Your task to perform on an android device: turn on javascript in the chrome app Image 0: 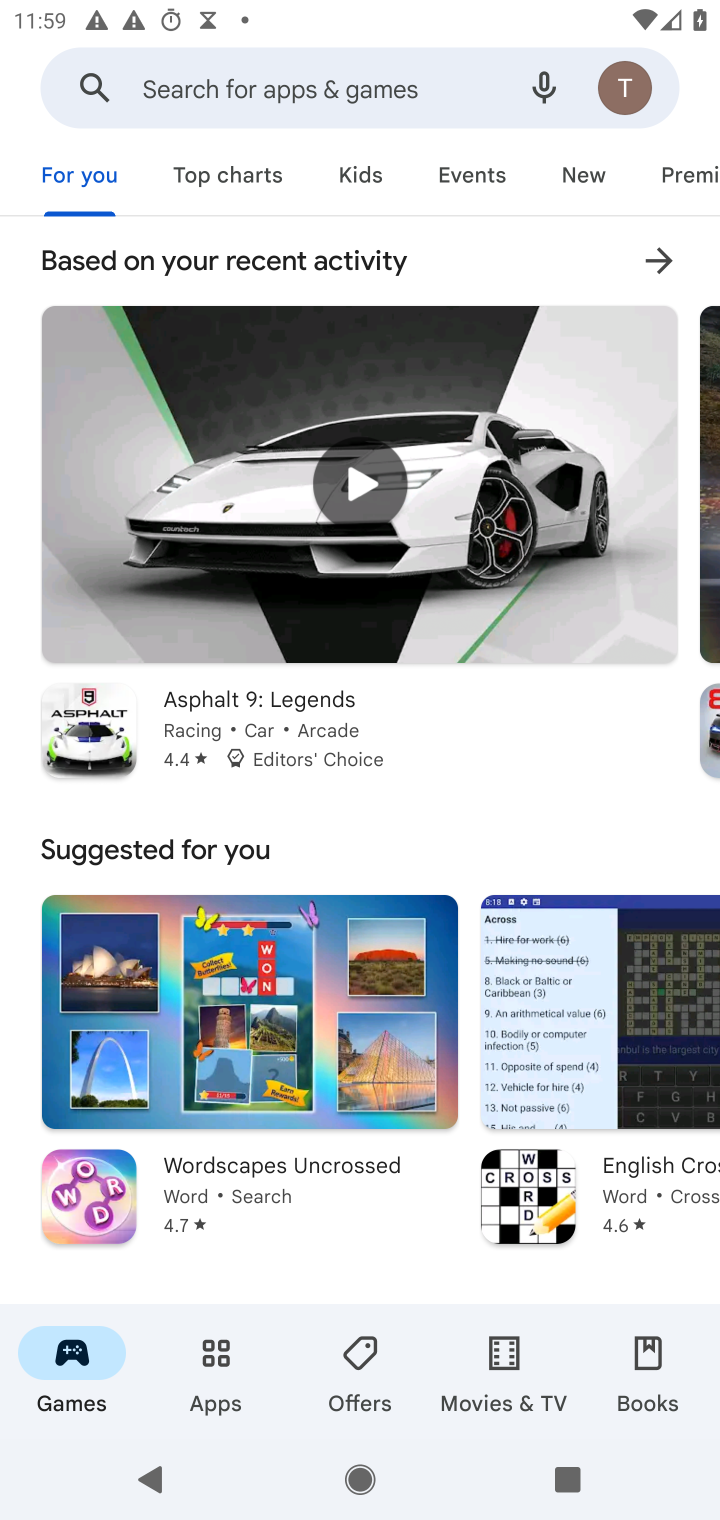
Step 0: press home button
Your task to perform on an android device: turn on javascript in the chrome app Image 1: 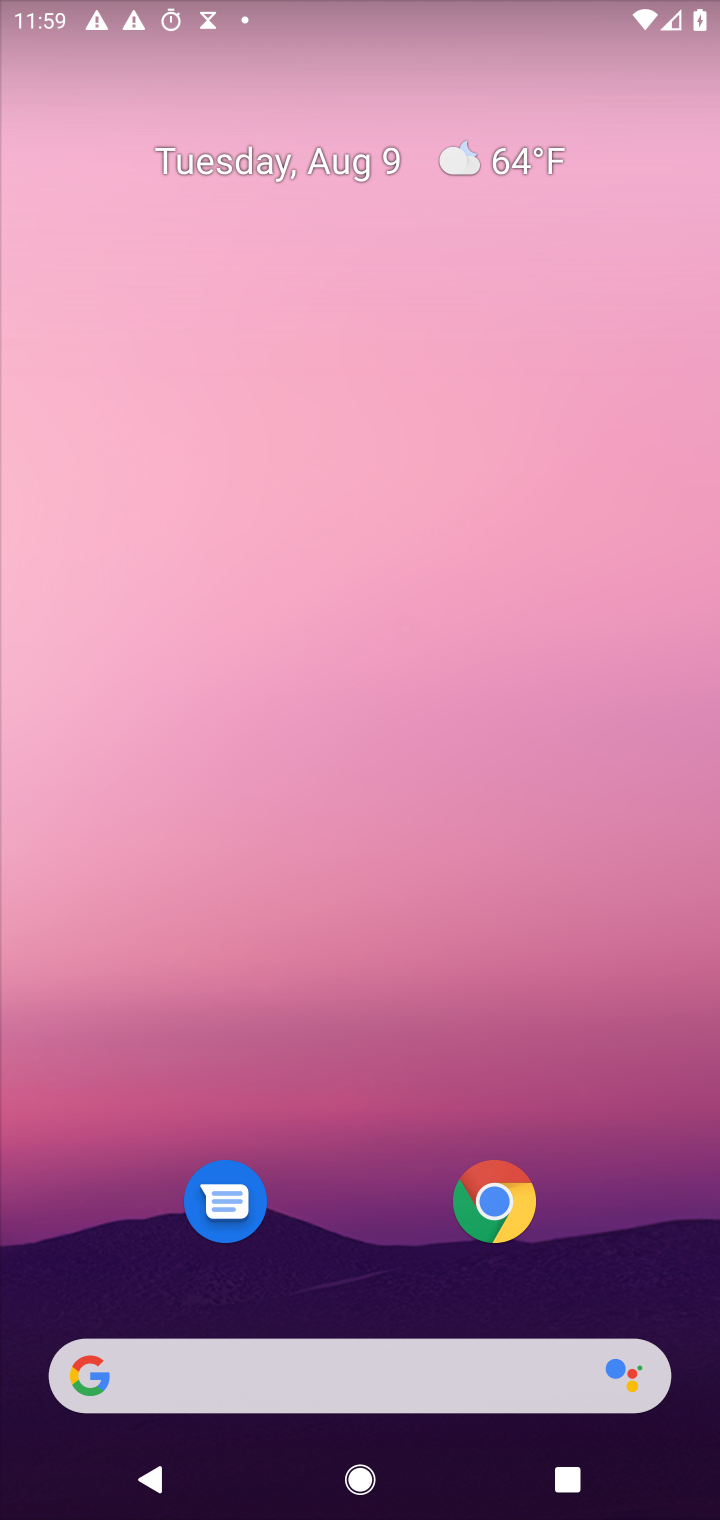
Step 1: click (497, 1189)
Your task to perform on an android device: turn on javascript in the chrome app Image 2: 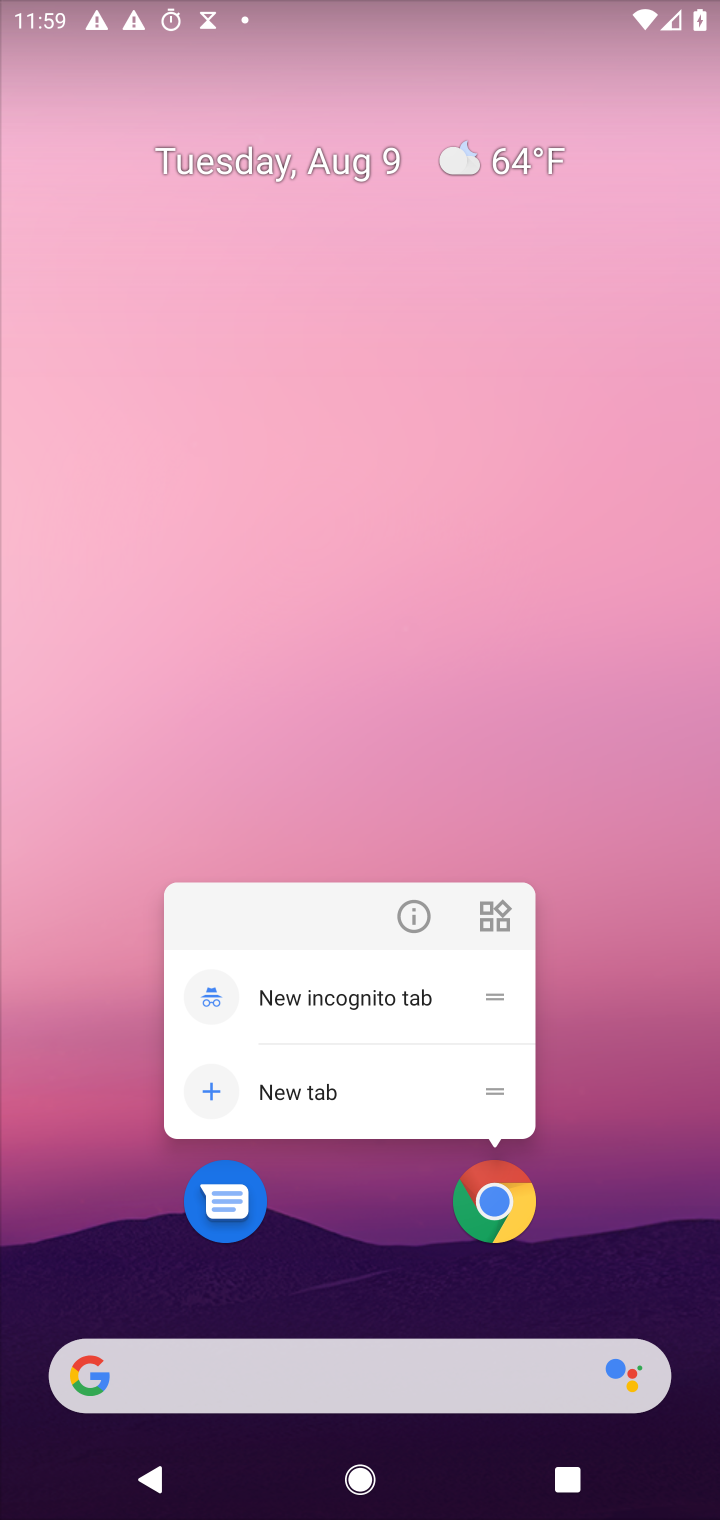
Step 2: click (489, 1198)
Your task to perform on an android device: turn on javascript in the chrome app Image 3: 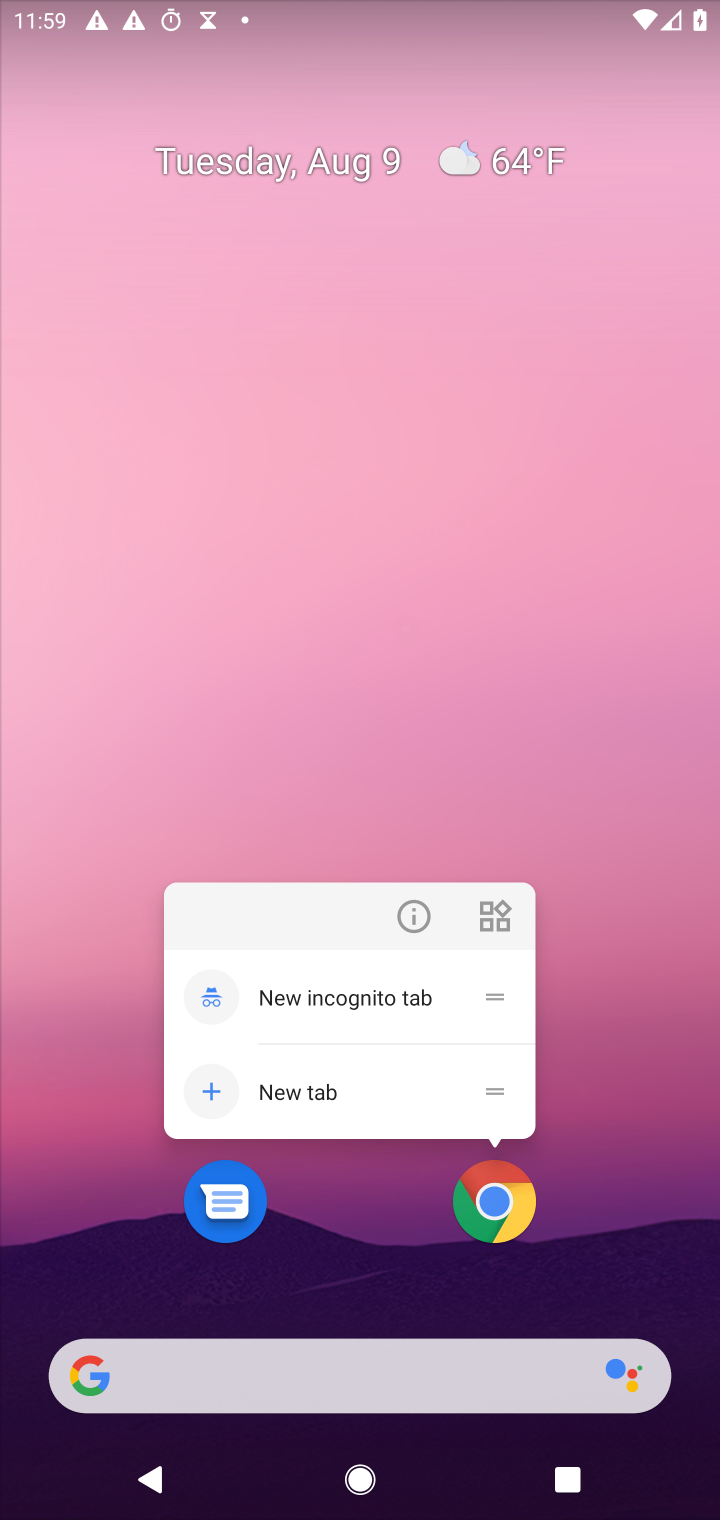
Step 3: click (489, 1198)
Your task to perform on an android device: turn on javascript in the chrome app Image 4: 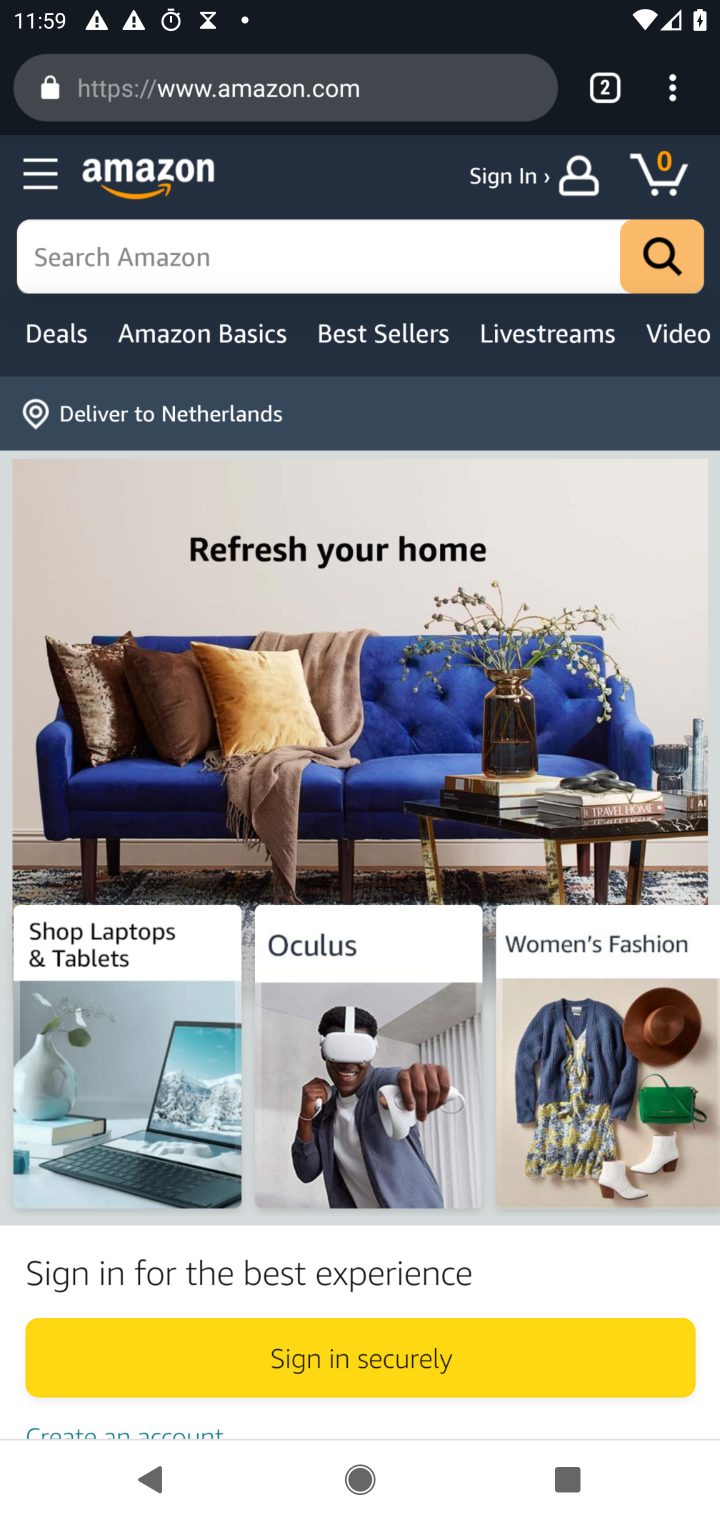
Step 4: drag from (667, 81) to (350, 1056)
Your task to perform on an android device: turn on javascript in the chrome app Image 5: 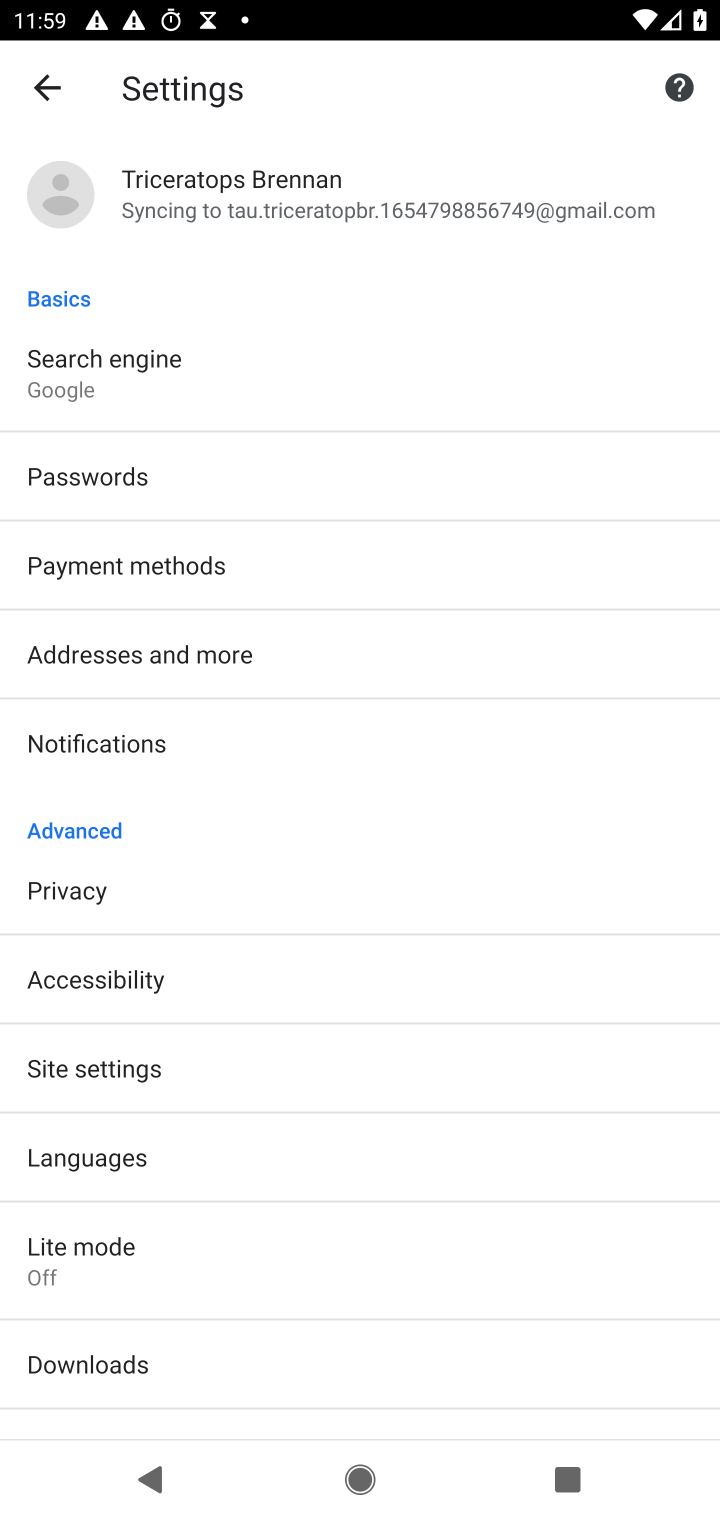
Step 5: click (86, 1063)
Your task to perform on an android device: turn on javascript in the chrome app Image 6: 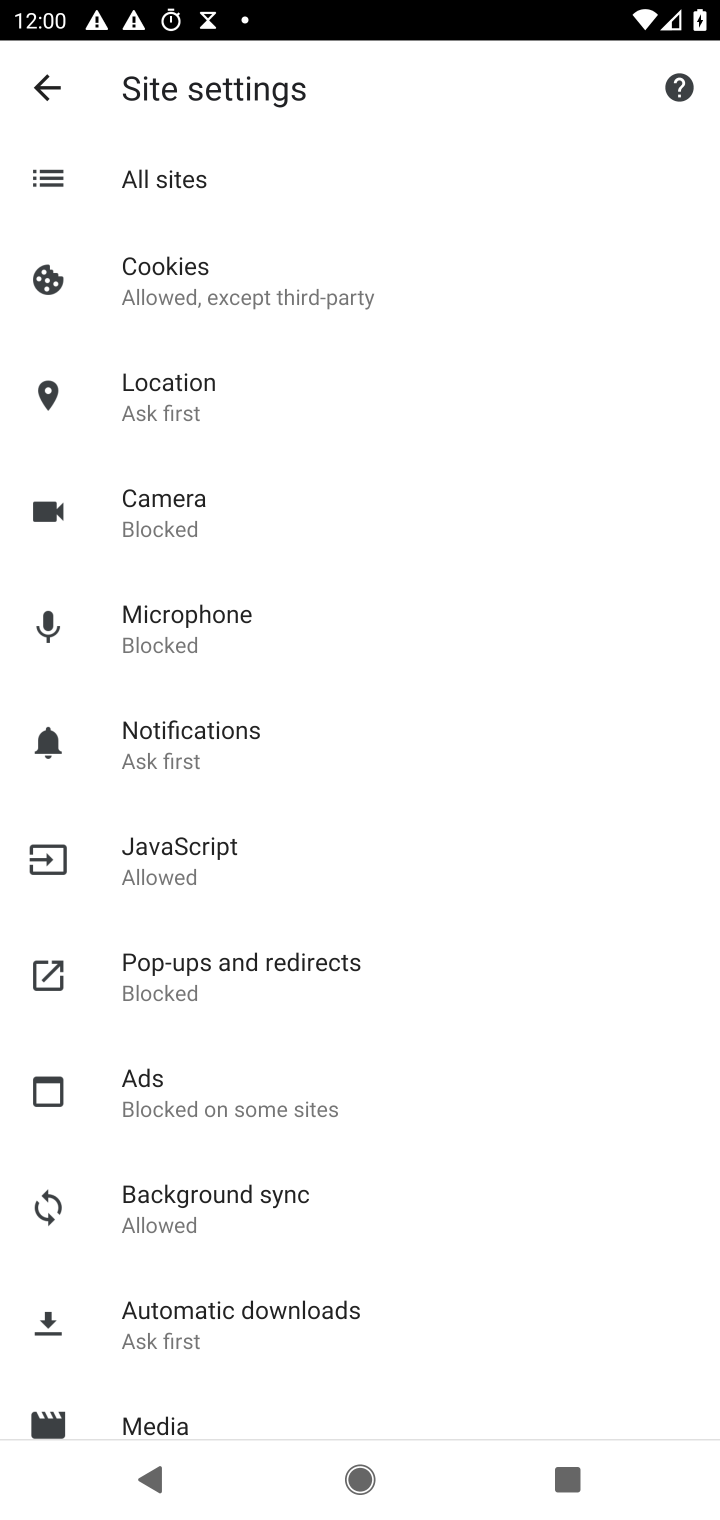
Step 6: click (194, 849)
Your task to perform on an android device: turn on javascript in the chrome app Image 7: 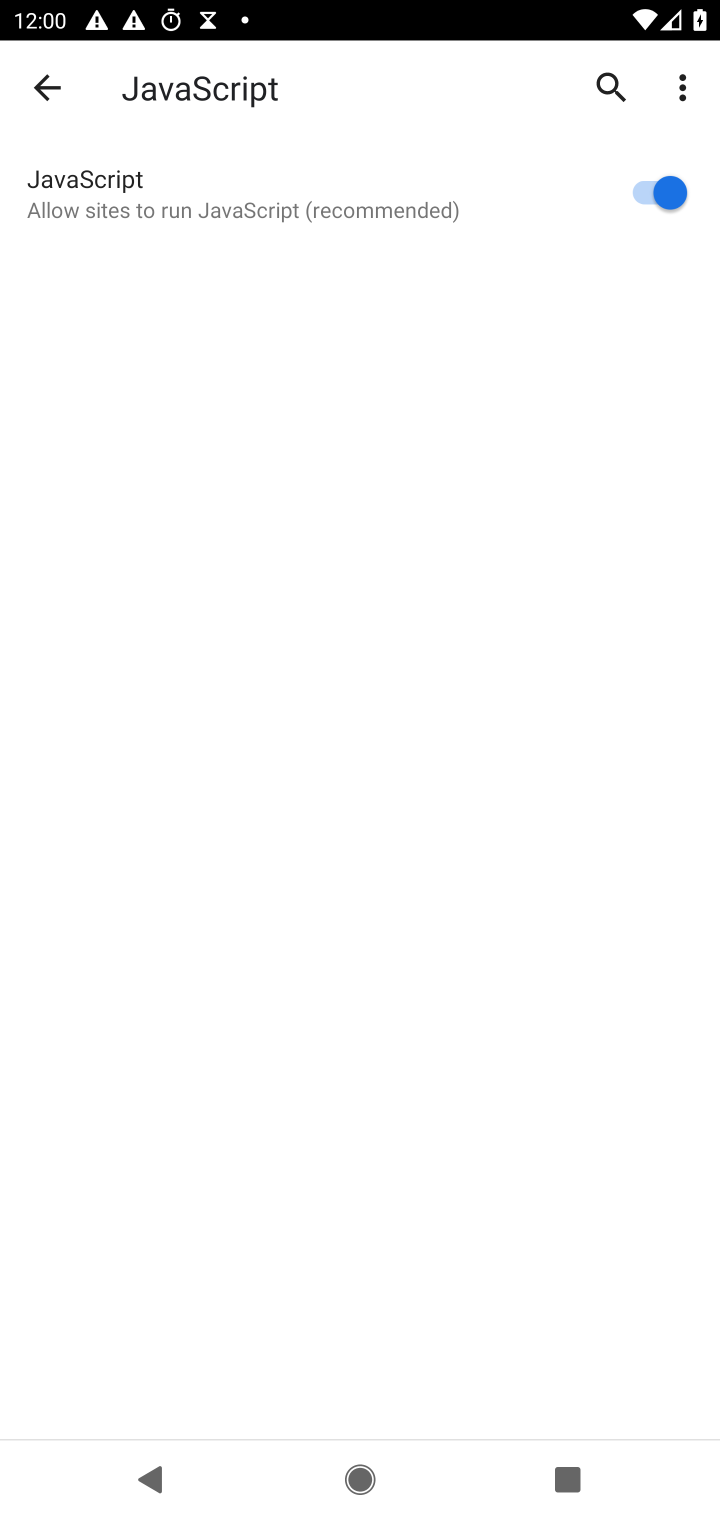
Step 7: task complete